Your task to perform on an android device: delete a single message in the gmail app Image 0: 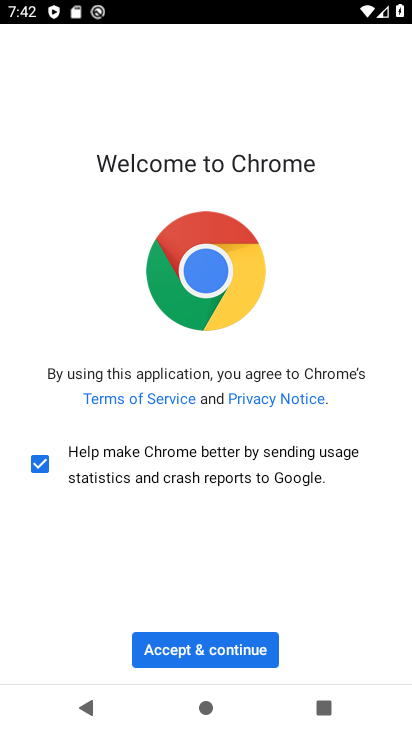
Step 0: press home button
Your task to perform on an android device: delete a single message in the gmail app Image 1: 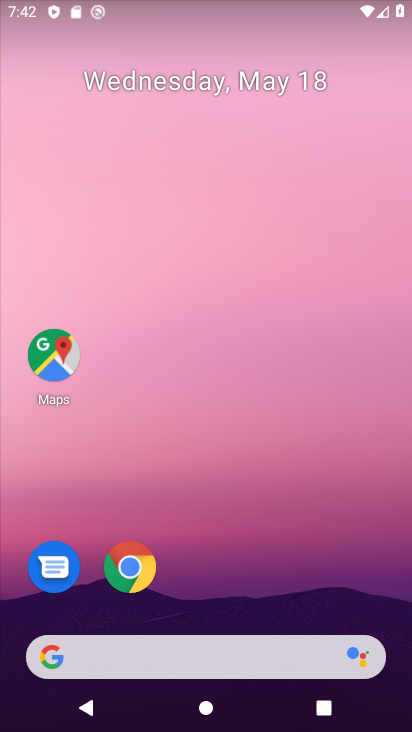
Step 1: drag from (220, 637) to (218, 105)
Your task to perform on an android device: delete a single message in the gmail app Image 2: 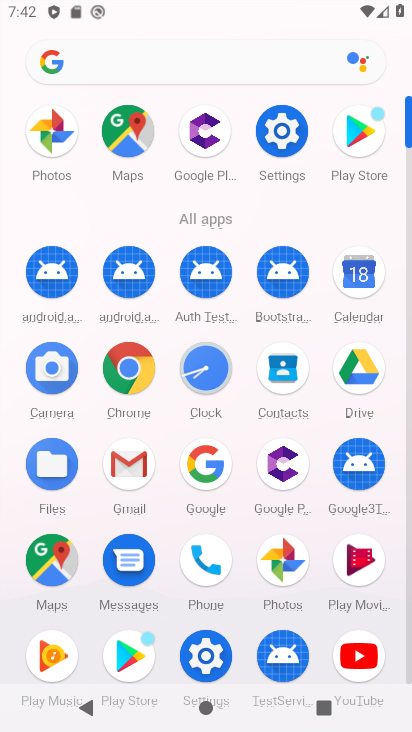
Step 2: click (134, 567)
Your task to perform on an android device: delete a single message in the gmail app Image 3: 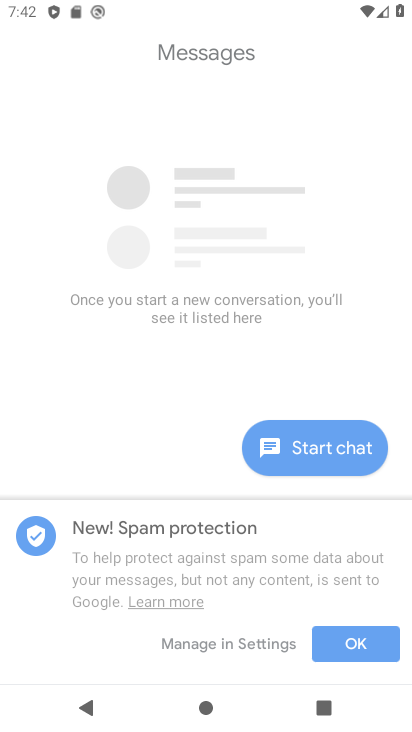
Step 3: press home button
Your task to perform on an android device: delete a single message in the gmail app Image 4: 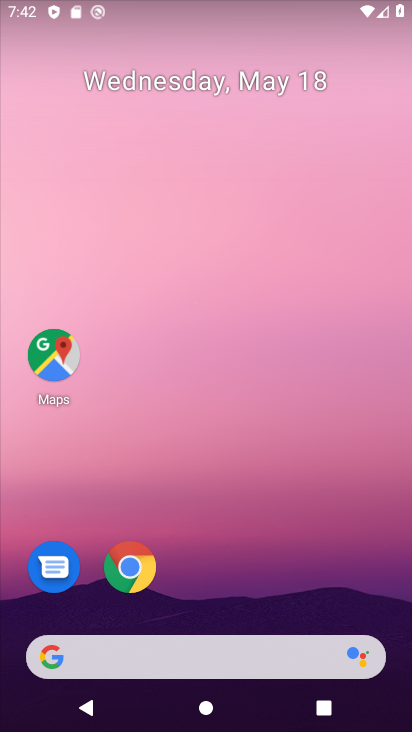
Step 4: drag from (189, 637) to (99, 26)
Your task to perform on an android device: delete a single message in the gmail app Image 5: 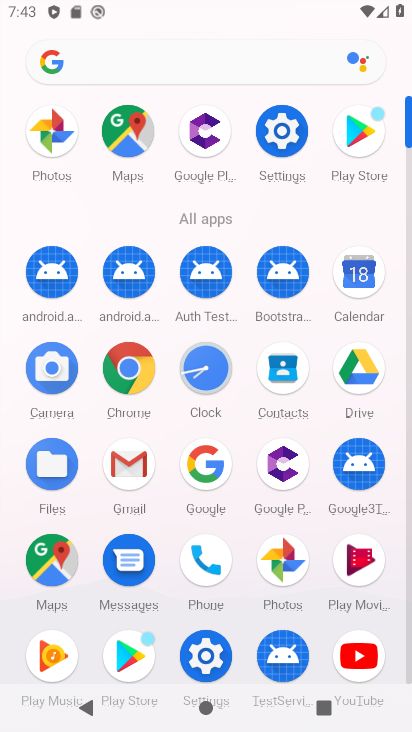
Step 5: click (124, 475)
Your task to perform on an android device: delete a single message in the gmail app Image 6: 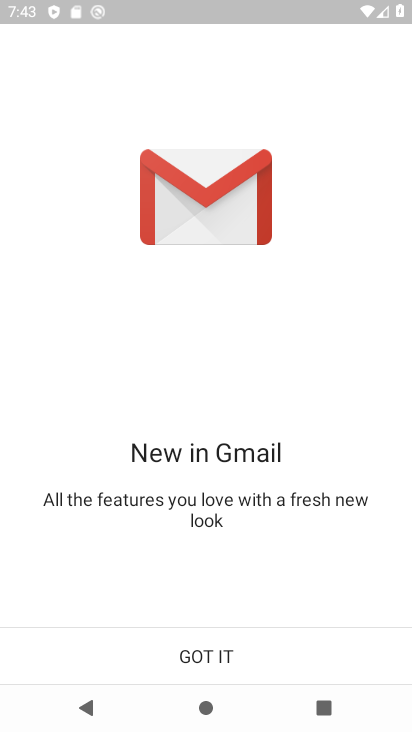
Step 6: click (178, 668)
Your task to perform on an android device: delete a single message in the gmail app Image 7: 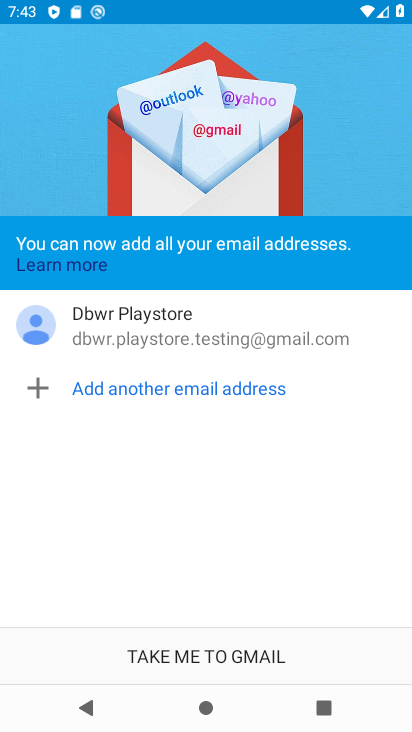
Step 7: click (178, 668)
Your task to perform on an android device: delete a single message in the gmail app Image 8: 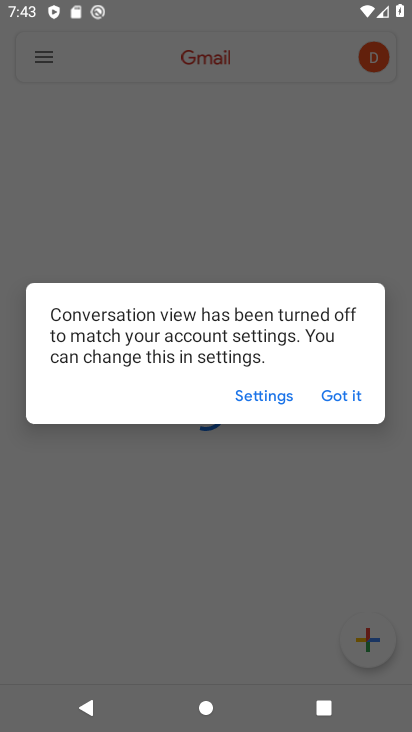
Step 8: click (336, 397)
Your task to perform on an android device: delete a single message in the gmail app Image 9: 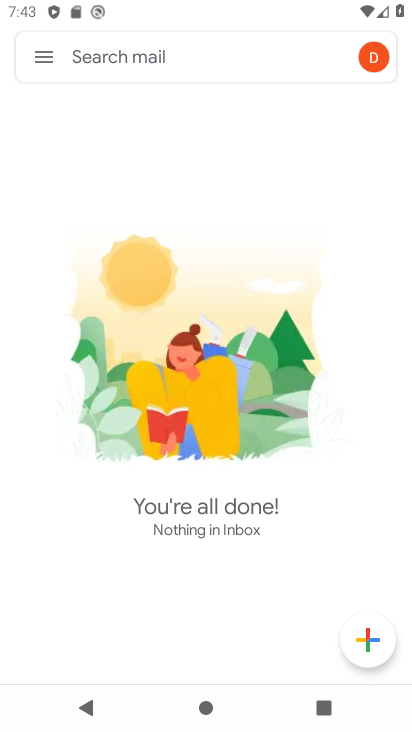
Step 9: click (42, 67)
Your task to perform on an android device: delete a single message in the gmail app Image 10: 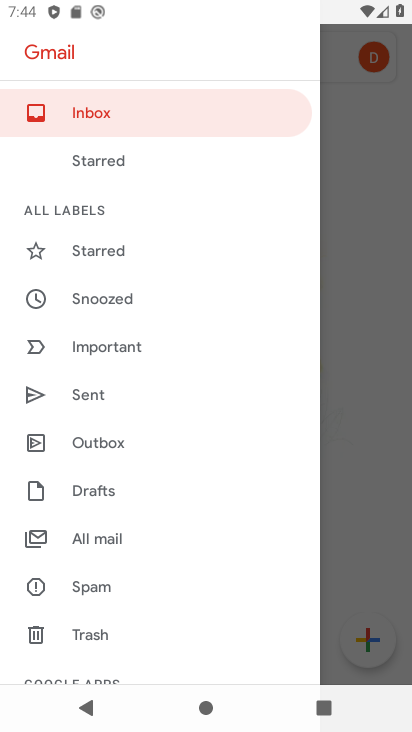
Step 10: drag from (117, 211) to (102, 454)
Your task to perform on an android device: delete a single message in the gmail app Image 11: 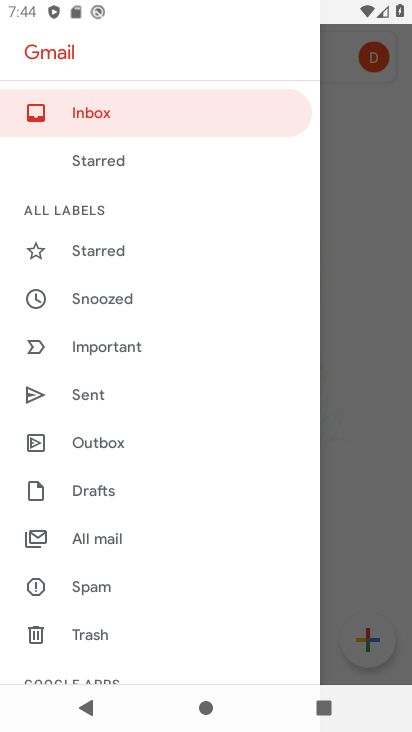
Step 11: click (88, 123)
Your task to perform on an android device: delete a single message in the gmail app Image 12: 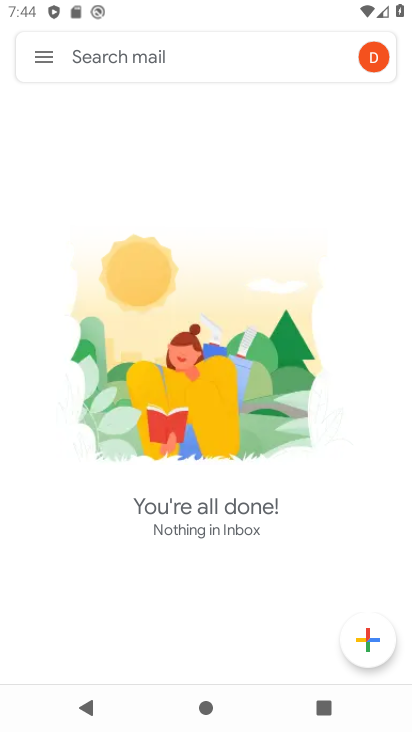
Step 12: task complete